Your task to perform on an android device: Look up the best rated power drills on Lowes.com Image 0: 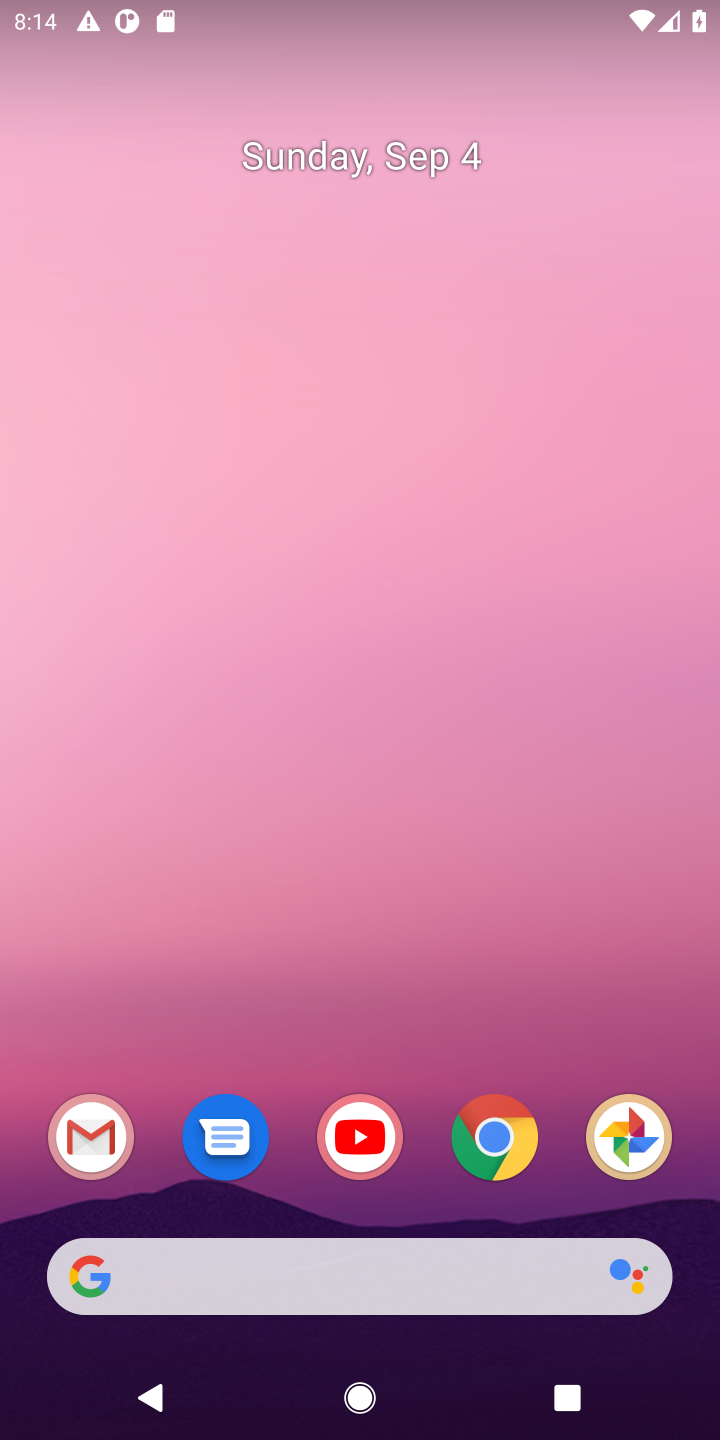
Step 0: click (492, 1142)
Your task to perform on an android device: Look up the best rated power drills on Lowes.com Image 1: 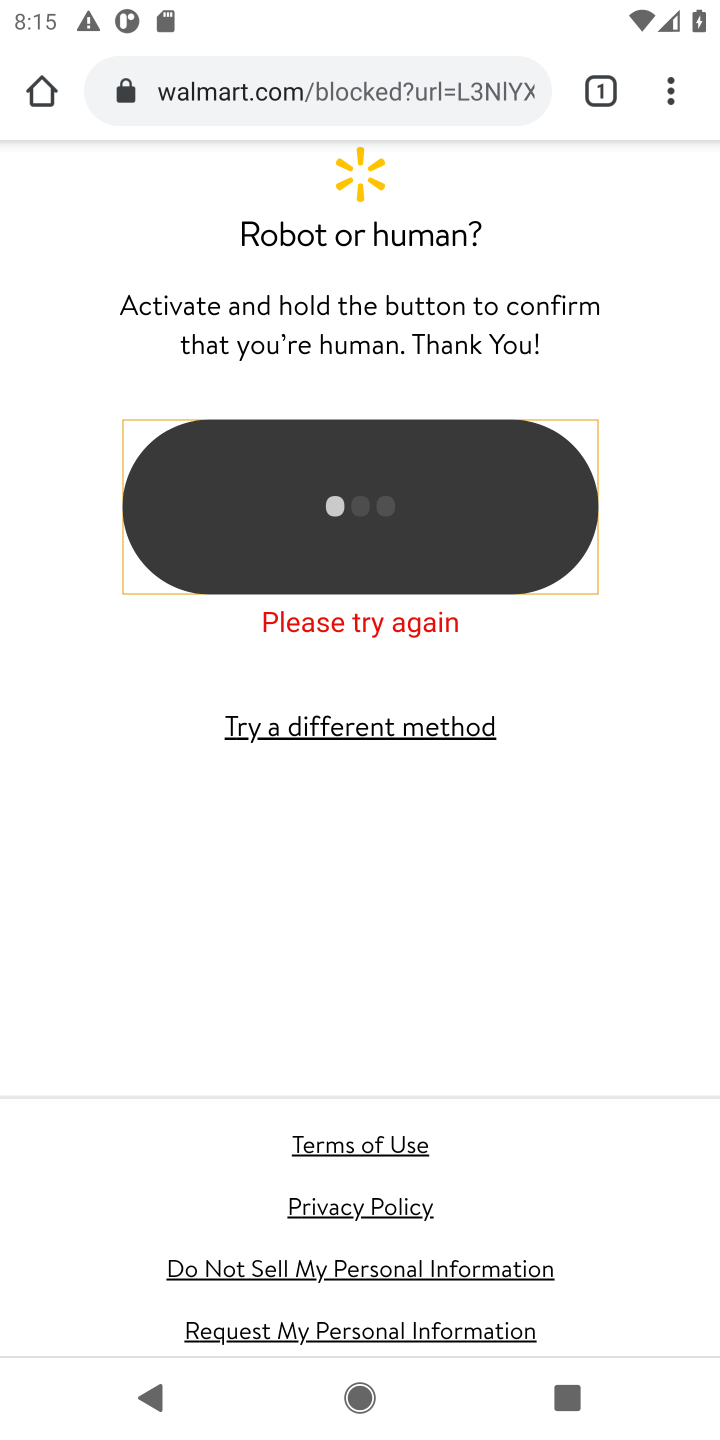
Step 1: click (282, 97)
Your task to perform on an android device: Look up the best rated power drills on Lowes.com Image 2: 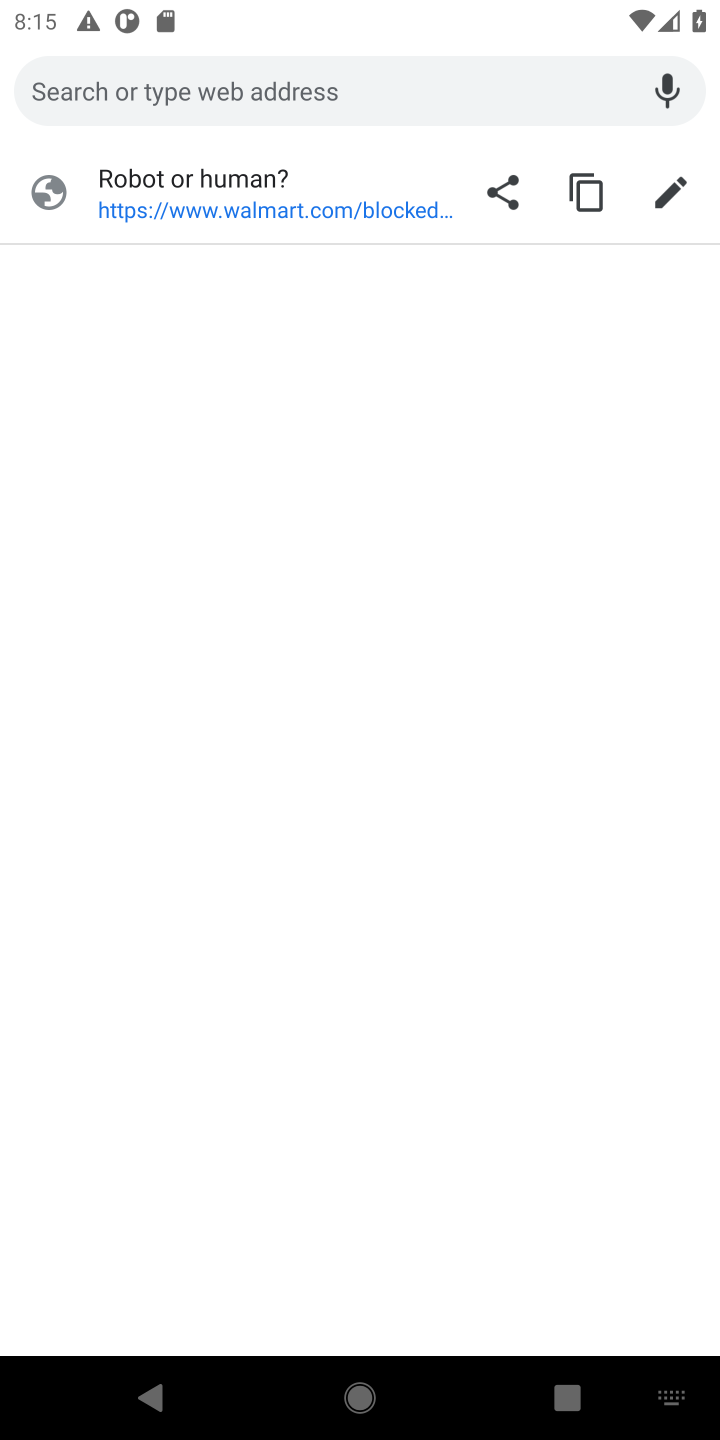
Step 2: type "Lowes.com"
Your task to perform on an android device: Look up the best rated power drills on Lowes.com Image 3: 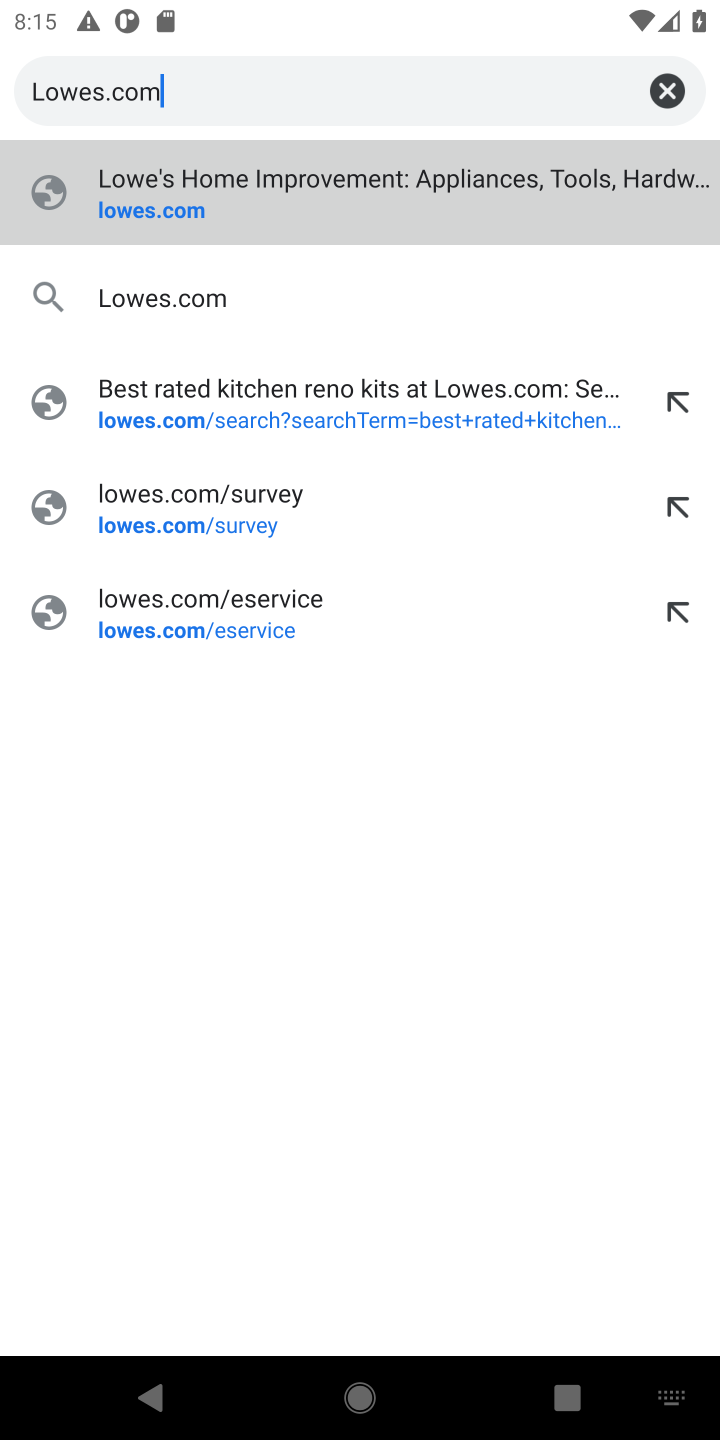
Step 3: click (173, 302)
Your task to perform on an android device: Look up the best rated power drills on Lowes.com Image 4: 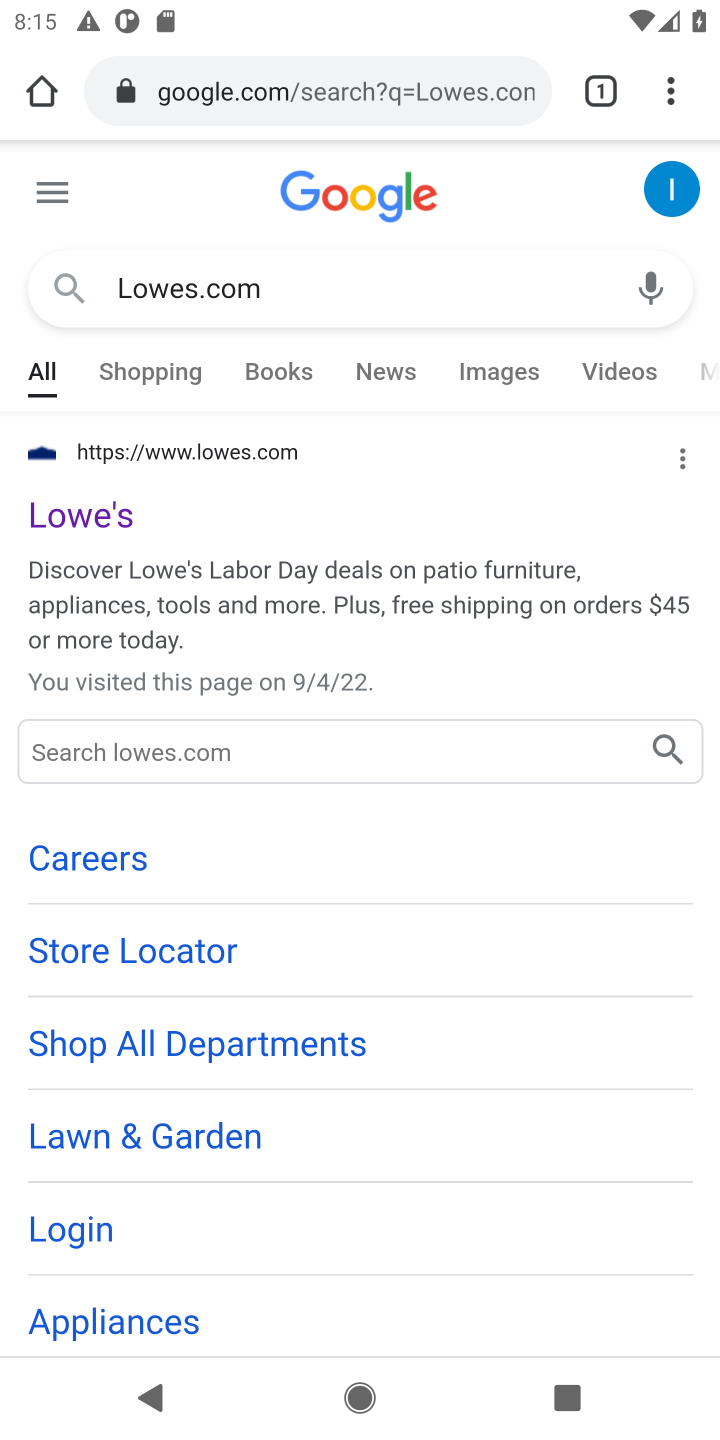
Step 4: click (109, 511)
Your task to perform on an android device: Look up the best rated power drills on Lowes.com Image 5: 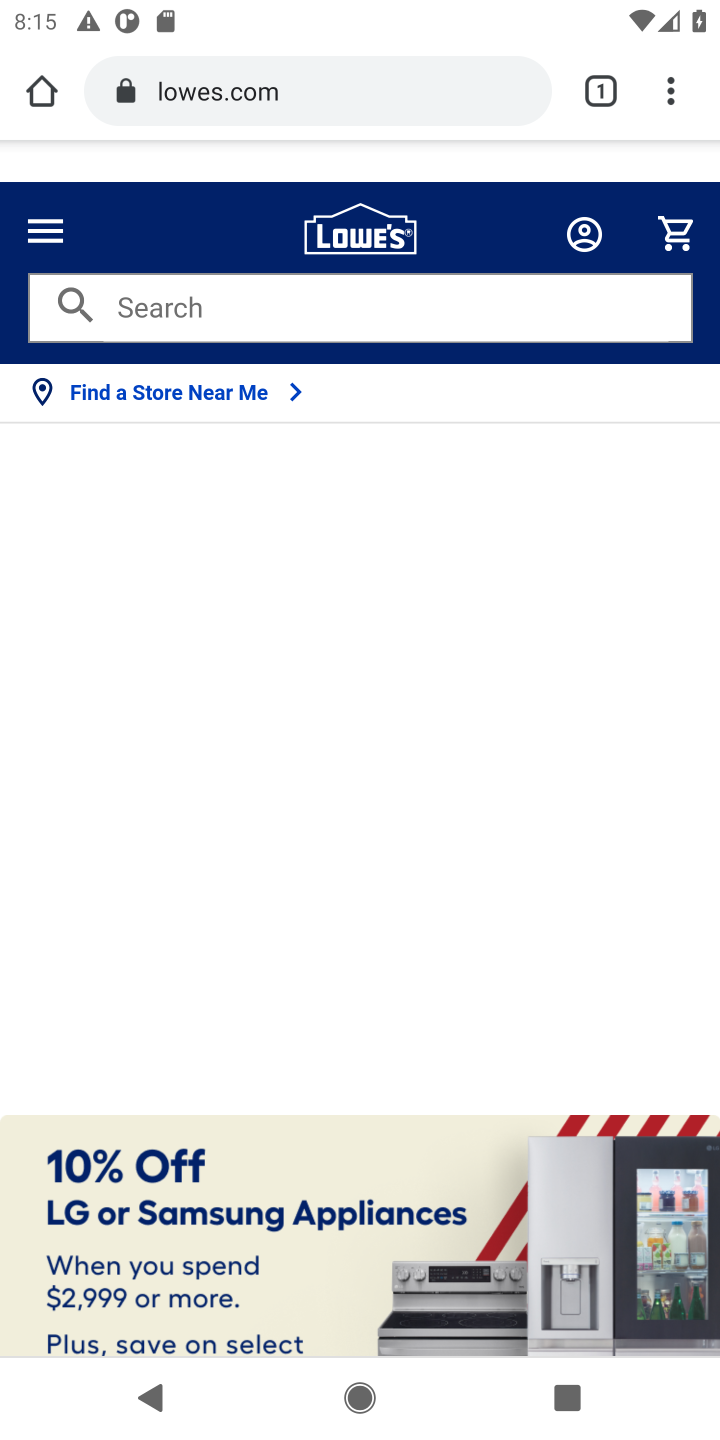
Step 5: click (272, 309)
Your task to perform on an android device: Look up the best rated power drills on Lowes.com Image 6: 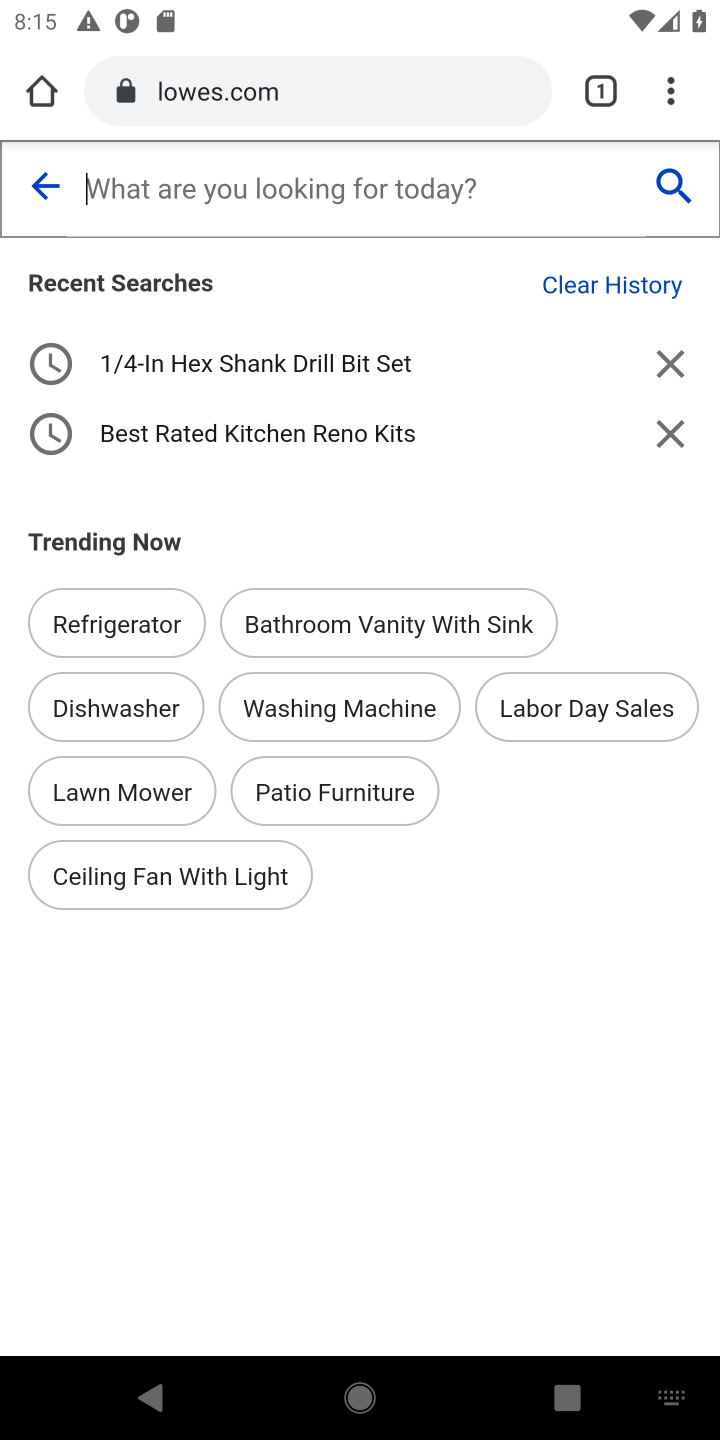
Step 6: type "best rated power drills"
Your task to perform on an android device: Look up the best rated power drills on Lowes.com Image 7: 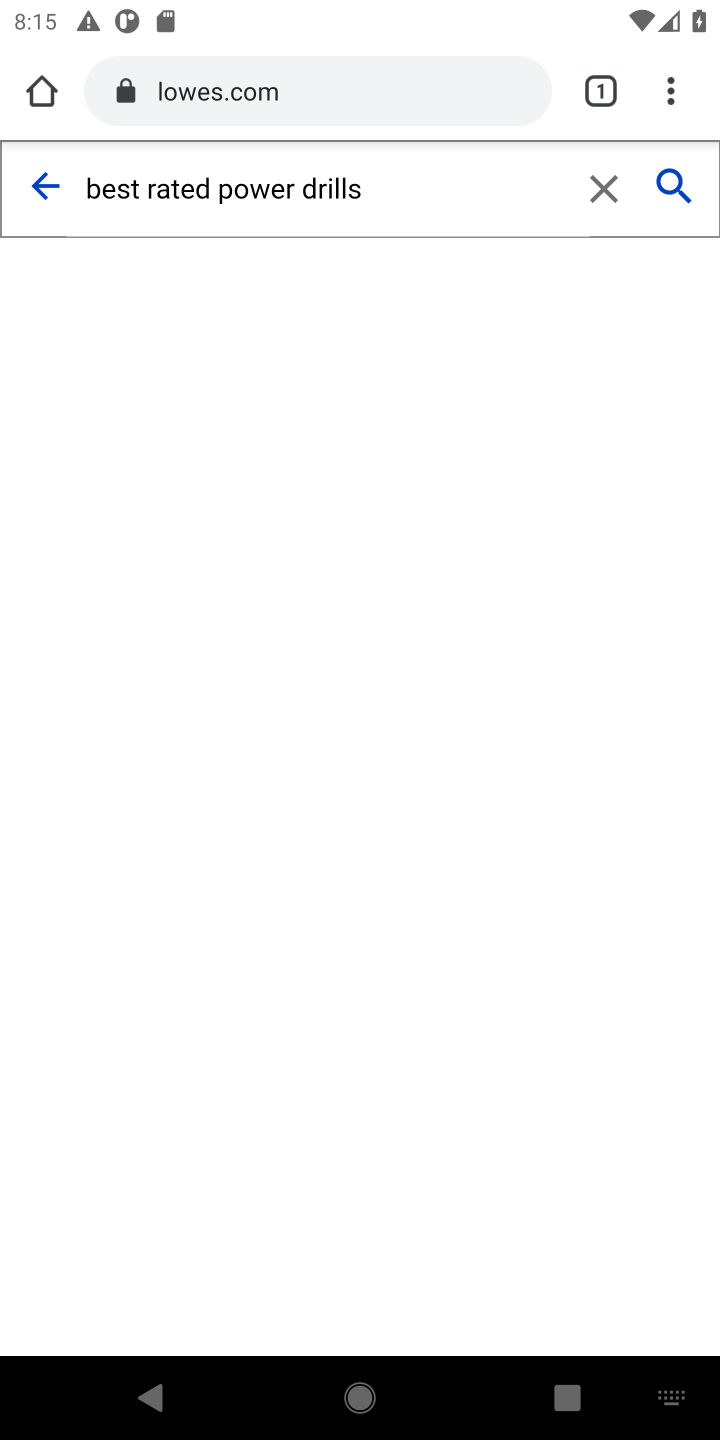
Step 7: click (673, 172)
Your task to perform on an android device: Look up the best rated power drills on Lowes.com Image 8: 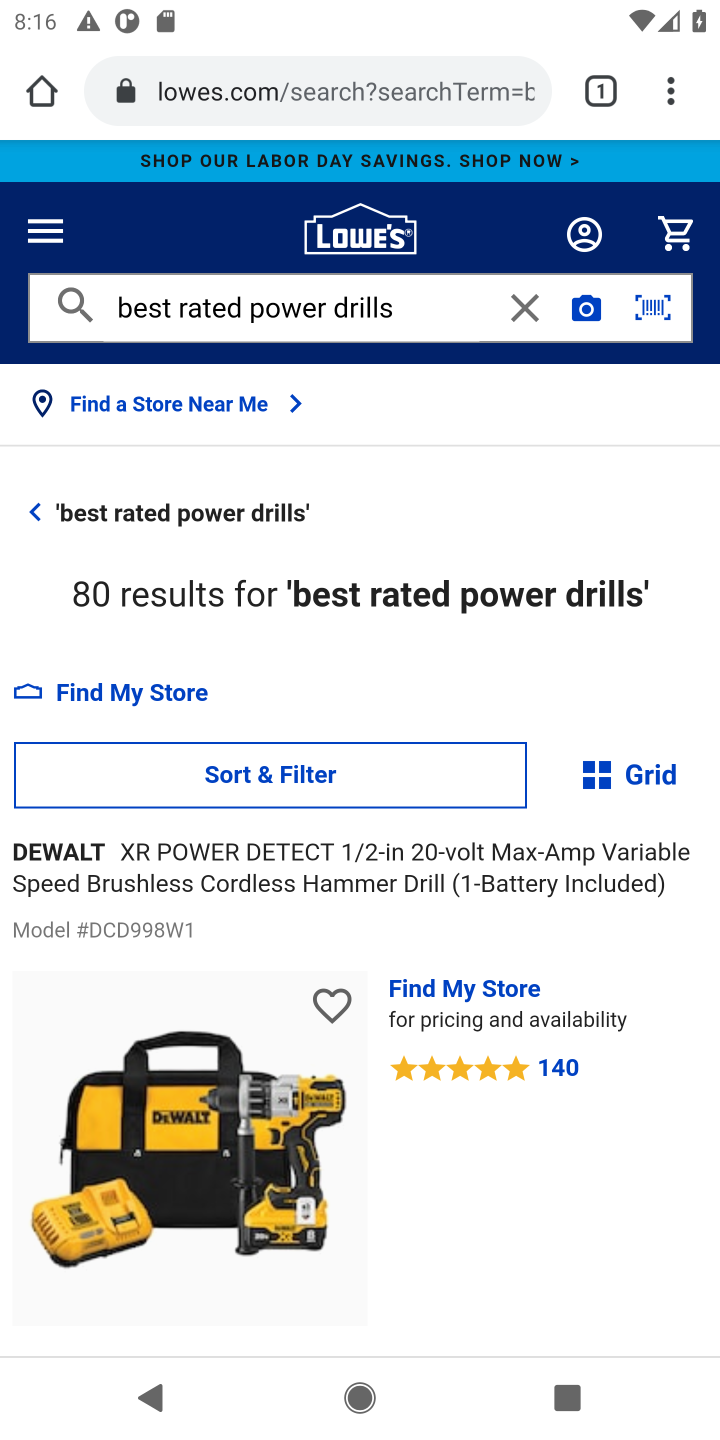
Step 8: task complete